Your task to perform on an android device: Open calendar and show me the fourth week of next month Image 0: 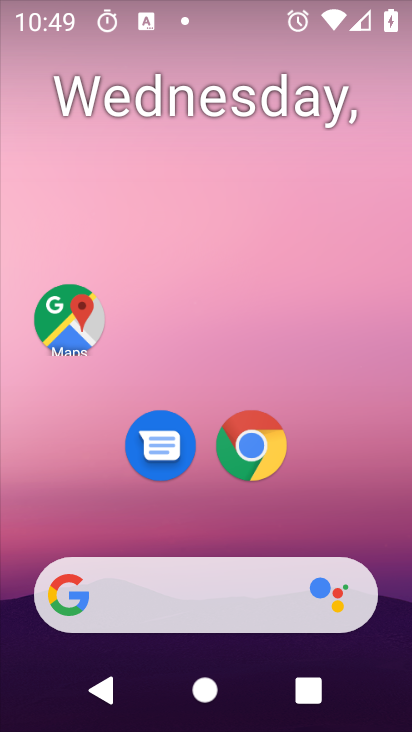
Step 0: drag from (364, 527) to (297, 47)
Your task to perform on an android device: Open calendar and show me the fourth week of next month Image 1: 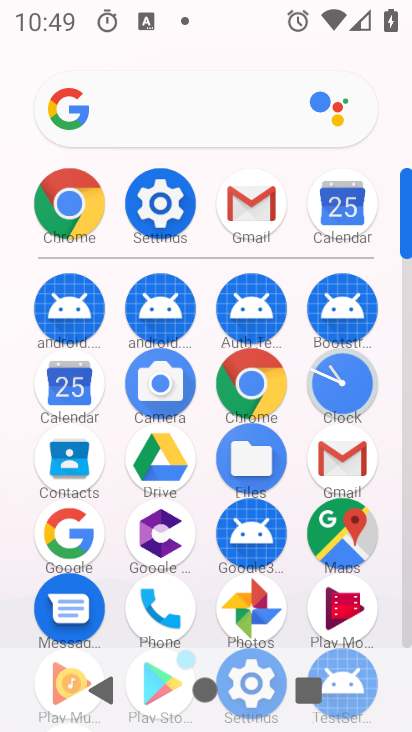
Step 1: click (66, 382)
Your task to perform on an android device: Open calendar and show me the fourth week of next month Image 2: 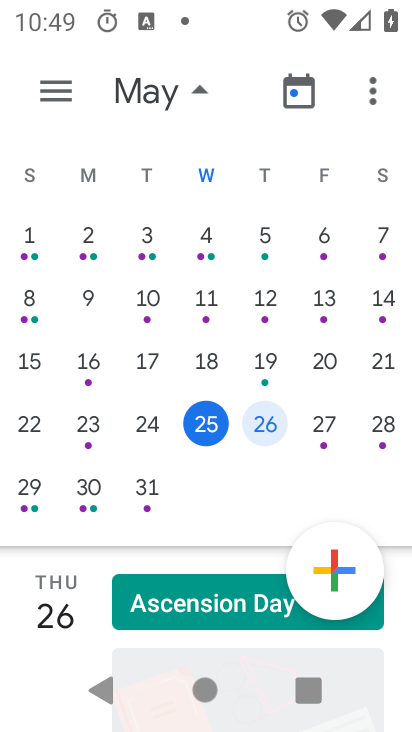
Step 2: drag from (382, 370) to (11, 406)
Your task to perform on an android device: Open calendar and show me the fourth week of next month Image 3: 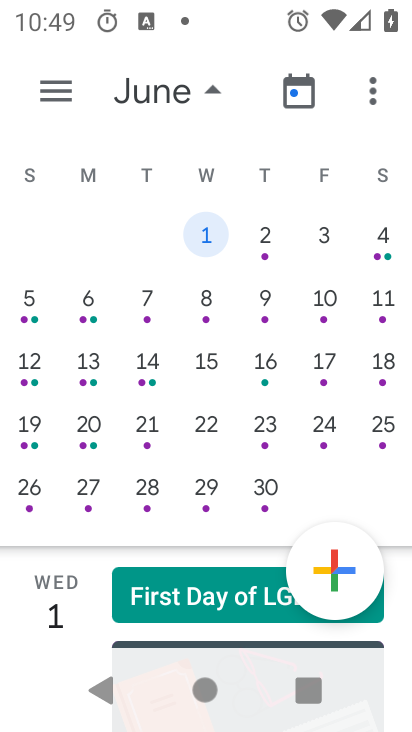
Step 3: click (158, 503)
Your task to perform on an android device: Open calendar and show me the fourth week of next month Image 4: 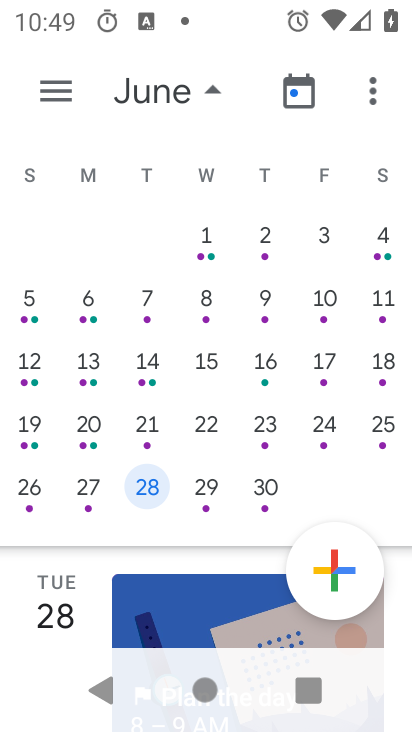
Step 4: task complete